Your task to perform on an android device: find snoozed emails in the gmail app Image 0: 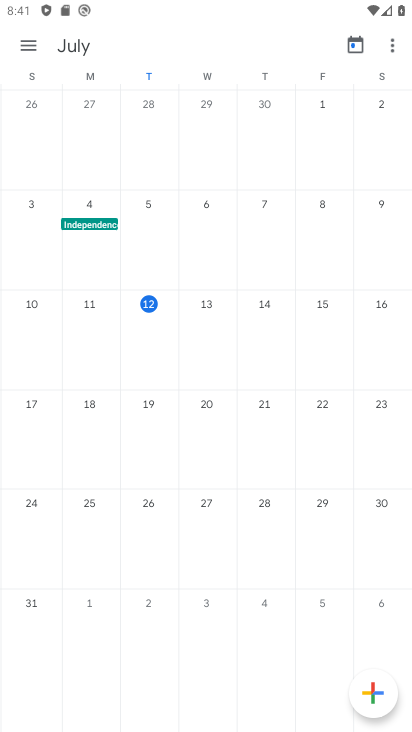
Step 0: press home button
Your task to perform on an android device: find snoozed emails in the gmail app Image 1: 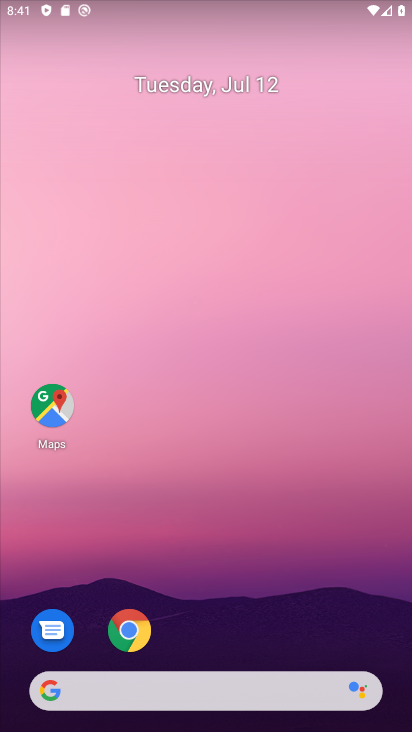
Step 1: drag from (245, 598) to (318, 63)
Your task to perform on an android device: find snoozed emails in the gmail app Image 2: 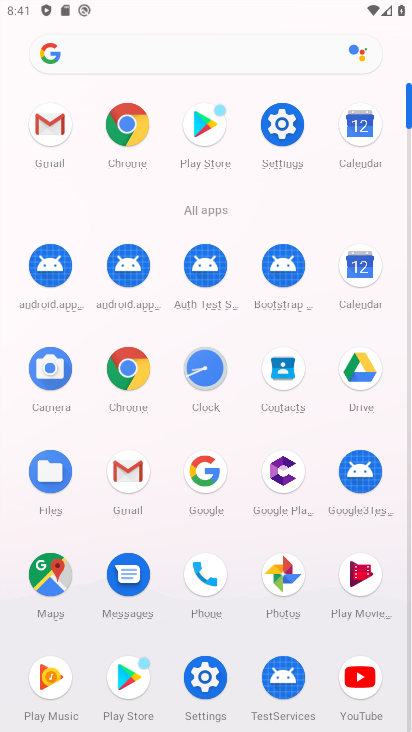
Step 2: click (48, 130)
Your task to perform on an android device: find snoozed emails in the gmail app Image 3: 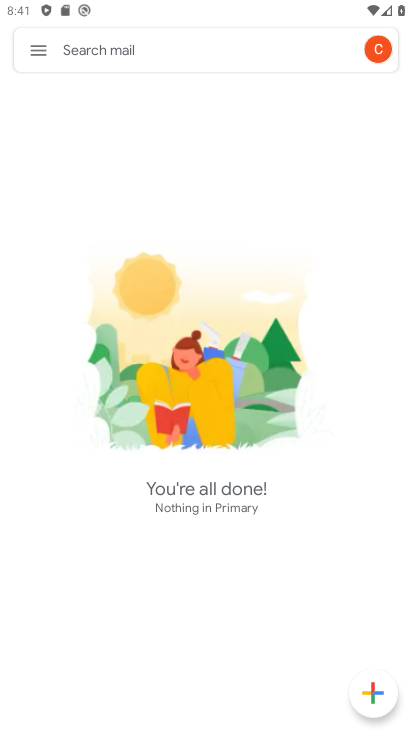
Step 3: click (27, 55)
Your task to perform on an android device: find snoozed emails in the gmail app Image 4: 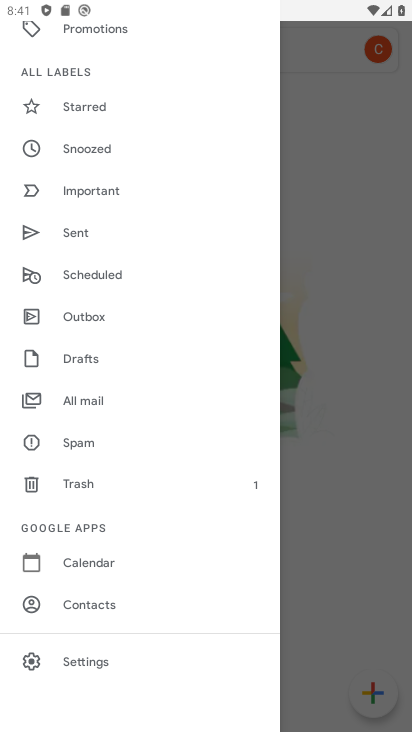
Step 4: click (86, 158)
Your task to perform on an android device: find snoozed emails in the gmail app Image 5: 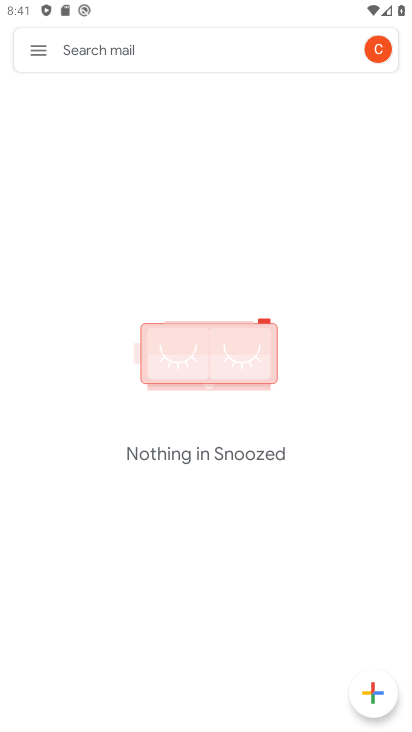
Step 5: task complete